Your task to perform on an android device: open app "Google Calendar" (install if not already installed) Image 0: 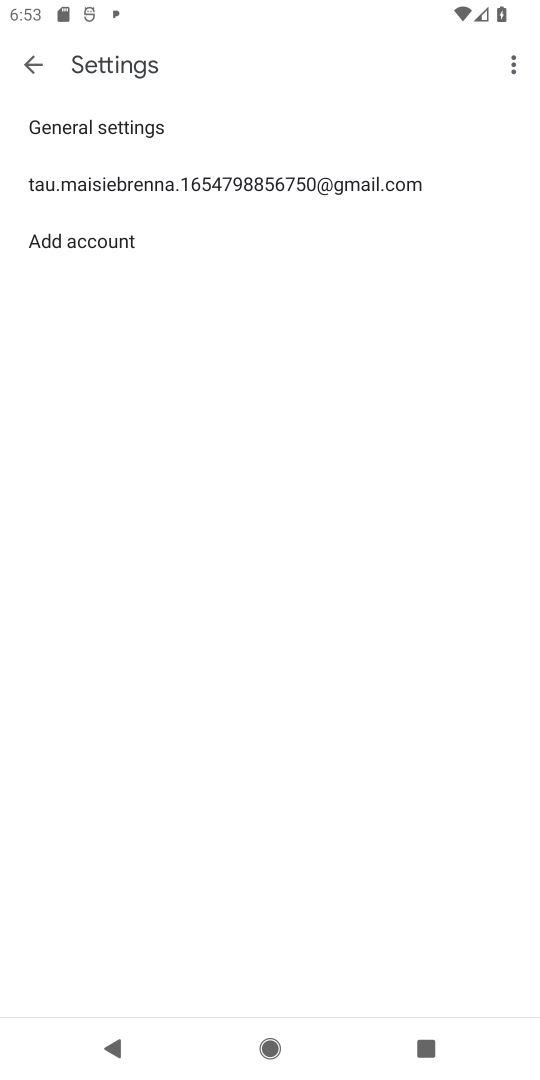
Step 0: press home button
Your task to perform on an android device: open app "Google Calendar" (install if not already installed) Image 1: 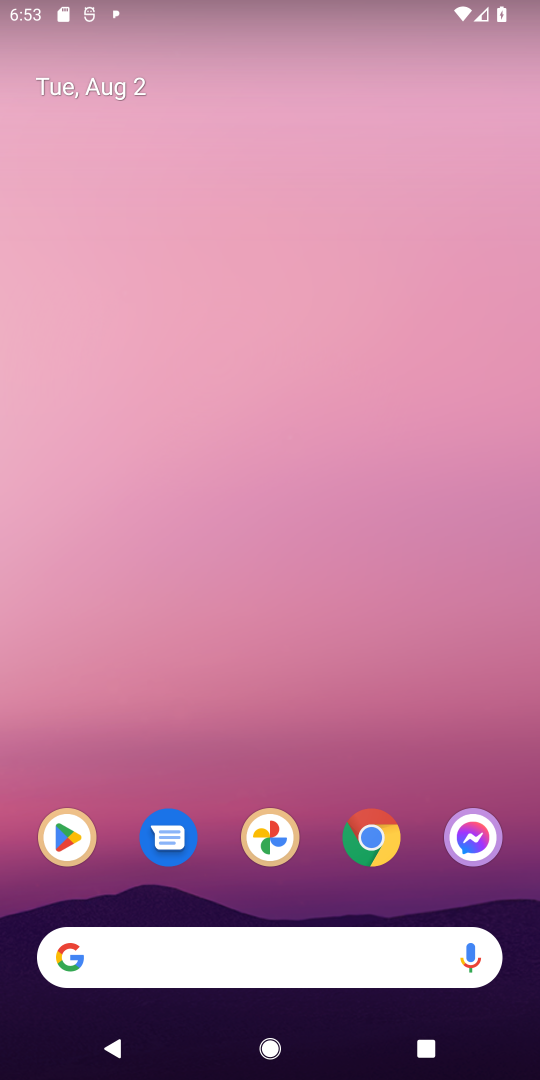
Step 1: click (72, 849)
Your task to perform on an android device: open app "Google Calendar" (install if not already installed) Image 2: 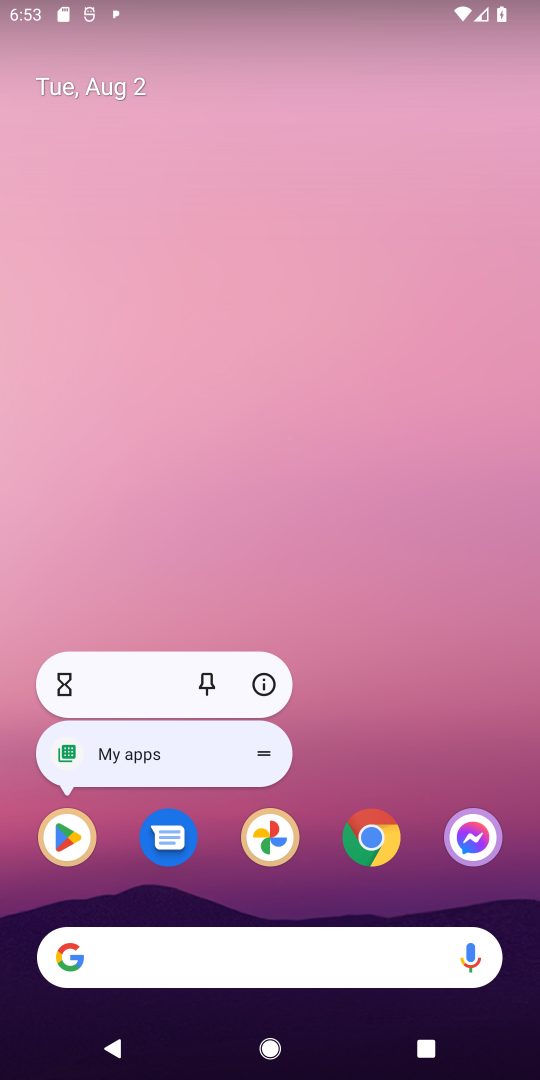
Step 2: click (58, 838)
Your task to perform on an android device: open app "Google Calendar" (install if not already installed) Image 3: 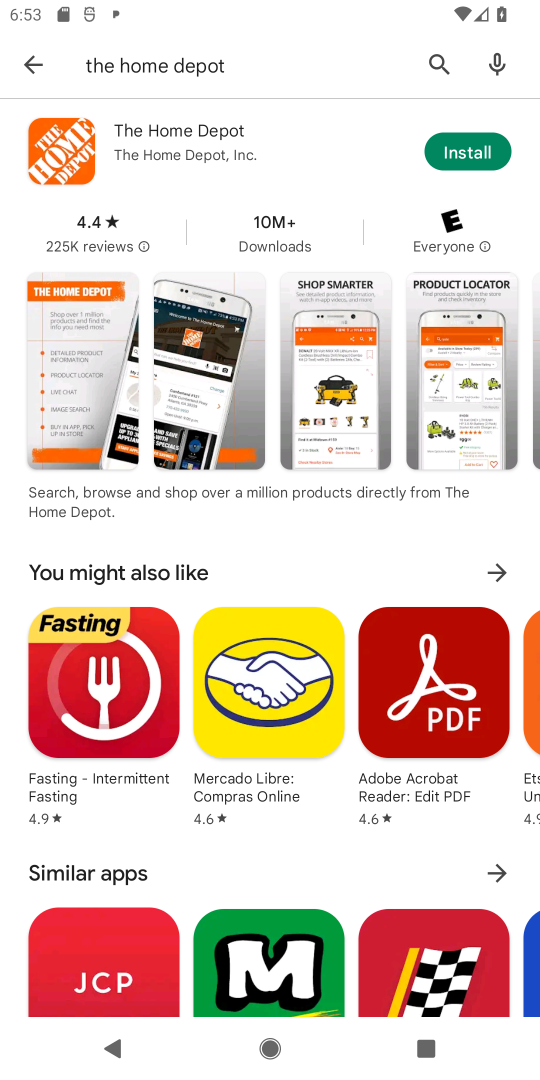
Step 3: click (441, 63)
Your task to perform on an android device: open app "Google Calendar" (install if not already installed) Image 4: 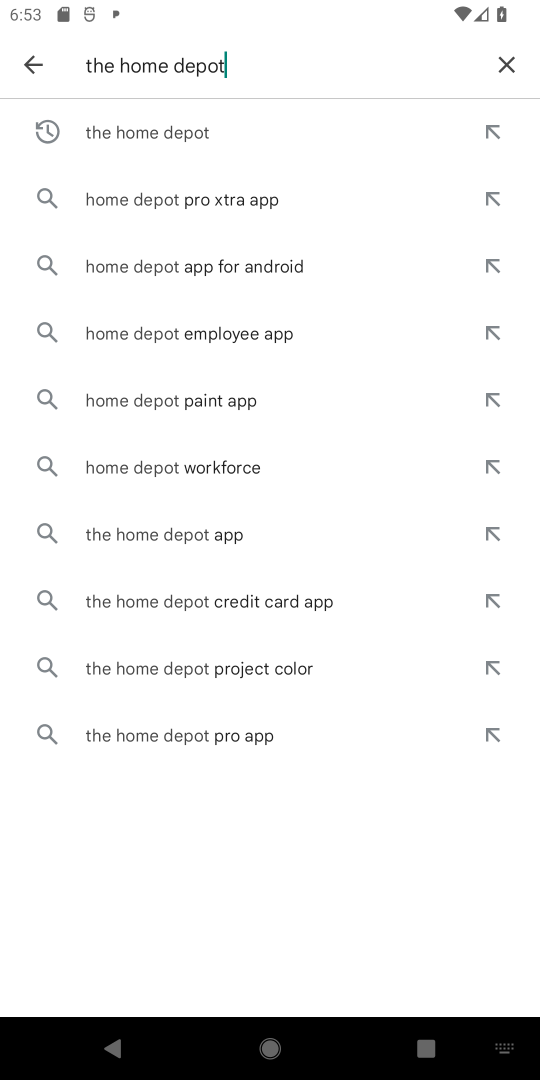
Step 4: click (506, 66)
Your task to perform on an android device: open app "Google Calendar" (install if not already installed) Image 5: 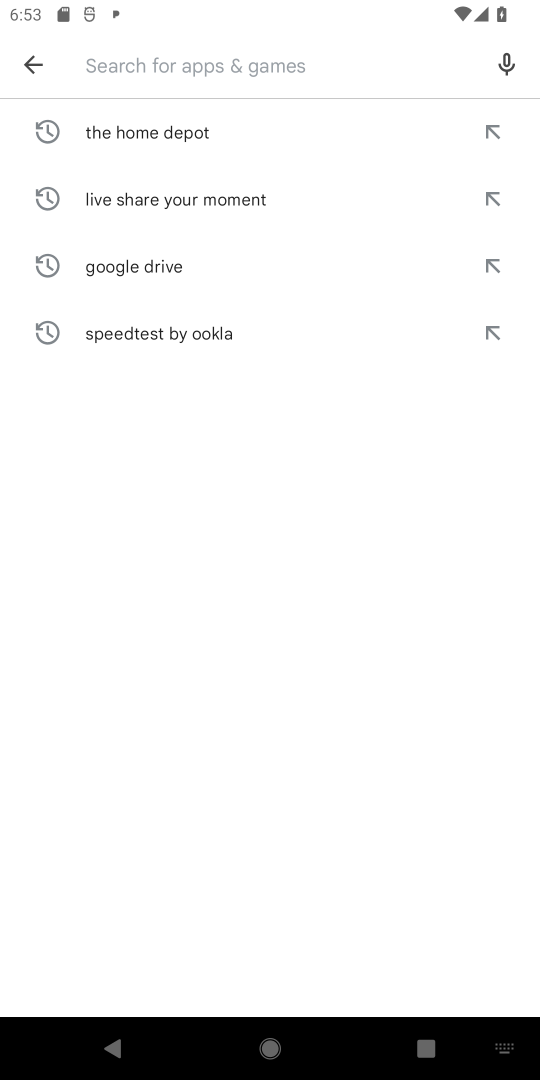
Step 5: type "Google Calendar"
Your task to perform on an android device: open app "Google Calendar" (install if not already installed) Image 6: 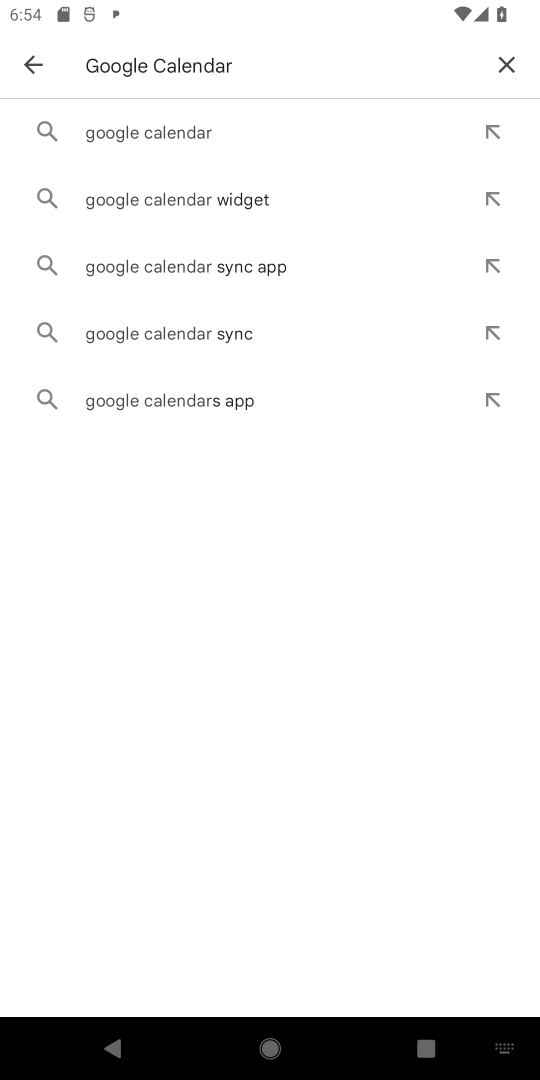
Step 6: click (146, 141)
Your task to perform on an android device: open app "Google Calendar" (install if not already installed) Image 7: 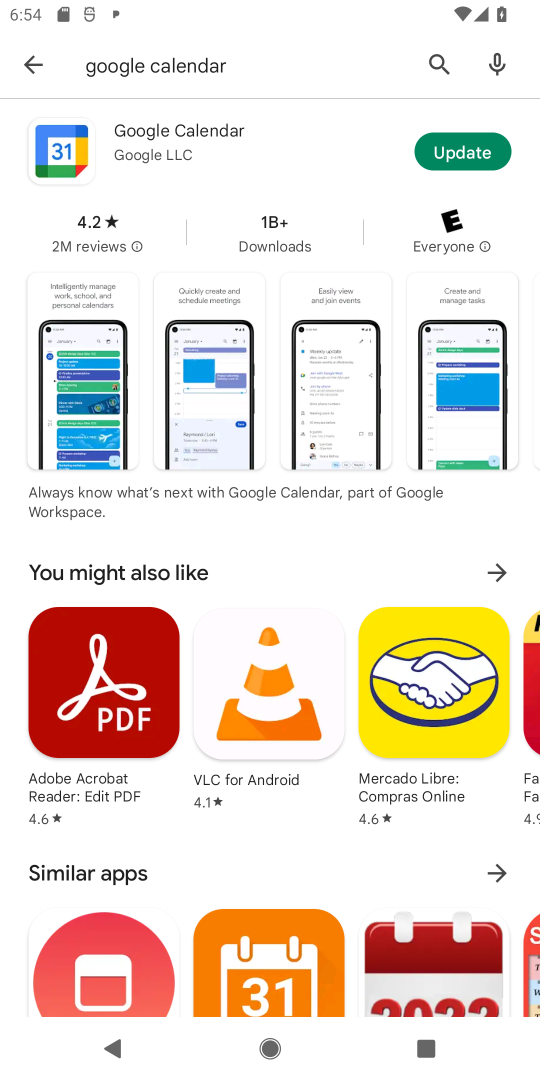
Step 7: click (145, 137)
Your task to perform on an android device: open app "Google Calendar" (install if not already installed) Image 8: 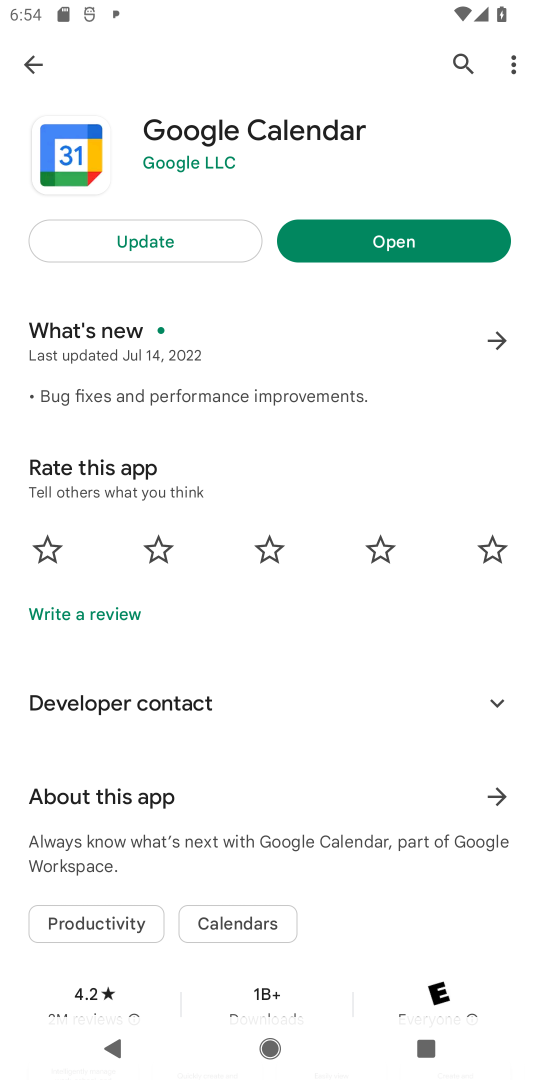
Step 8: click (348, 247)
Your task to perform on an android device: open app "Google Calendar" (install if not already installed) Image 9: 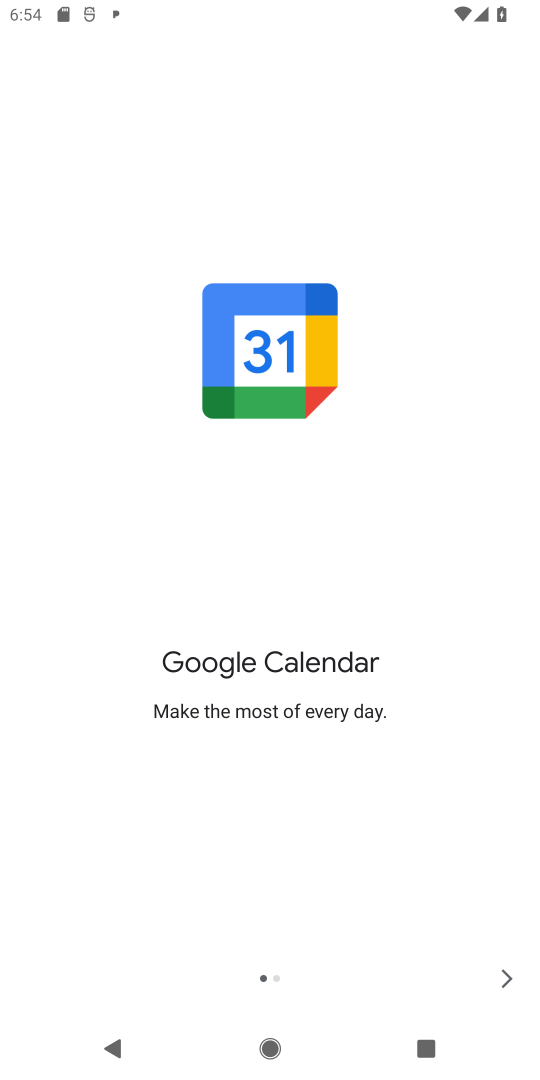
Step 9: task complete